Your task to perform on an android device: What is the recent news? Image 0: 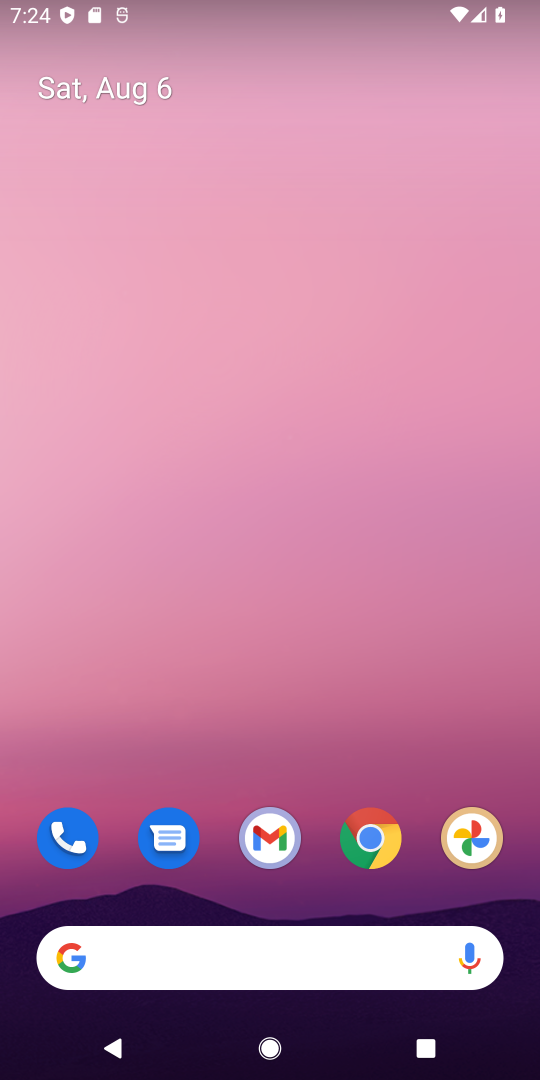
Step 0: click (237, 962)
Your task to perform on an android device: What is the recent news? Image 1: 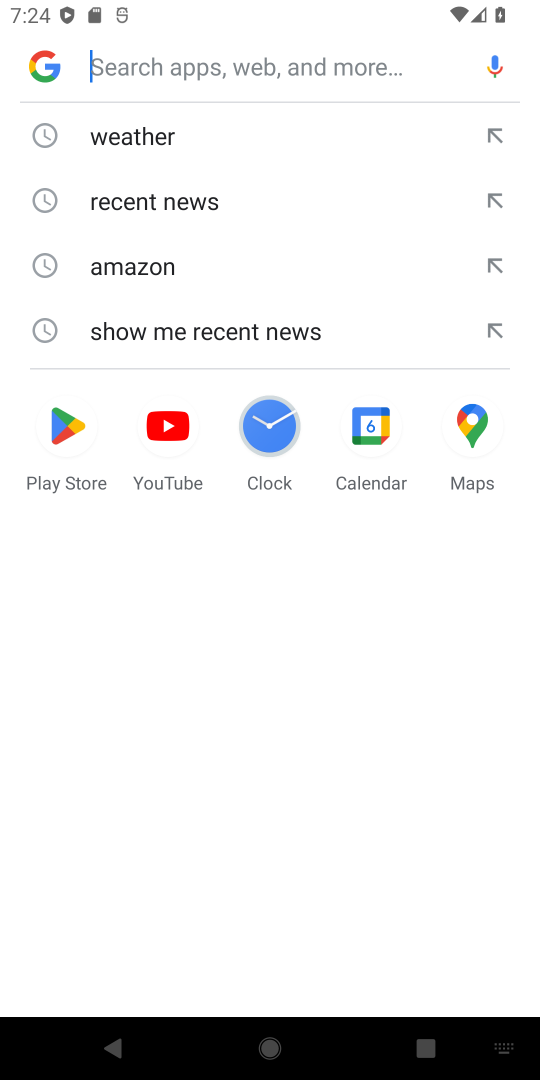
Step 1: click (189, 201)
Your task to perform on an android device: What is the recent news? Image 2: 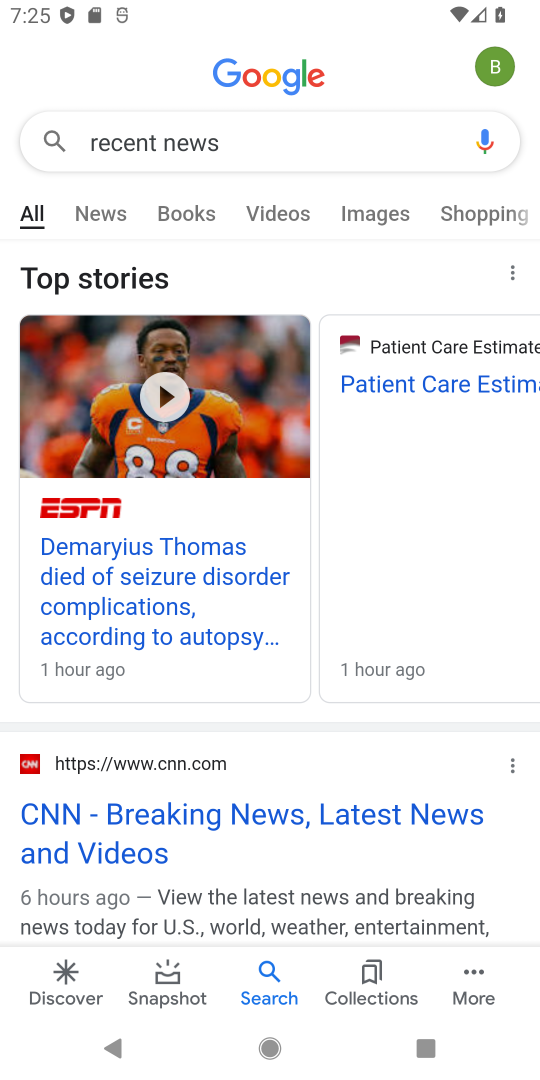
Step 2: task complete